Your task to perform on an android device: toggle data saver in the chrome app Image 0: 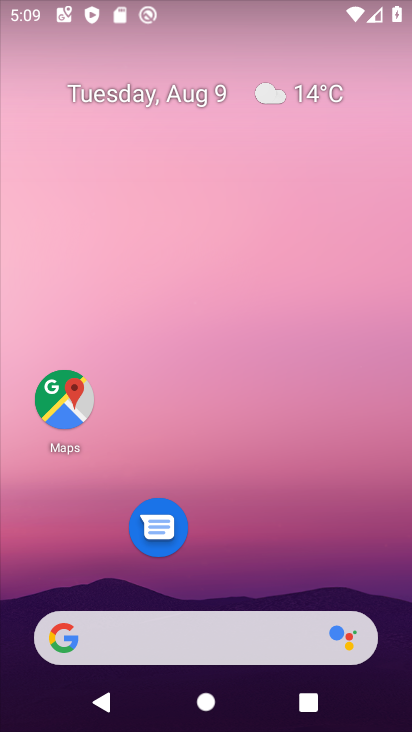
Step 0: drag from (176, 580) to (269, 28)
Your task to perform on an android device: toggle data saver in the chrome app Image 1: 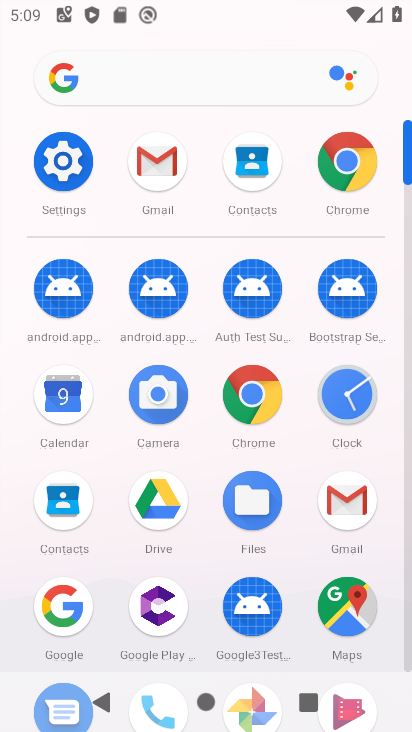
Step 1: click (356, 193)
Your task to perform on an android device: toggle data saver in the chrome app Image 2: 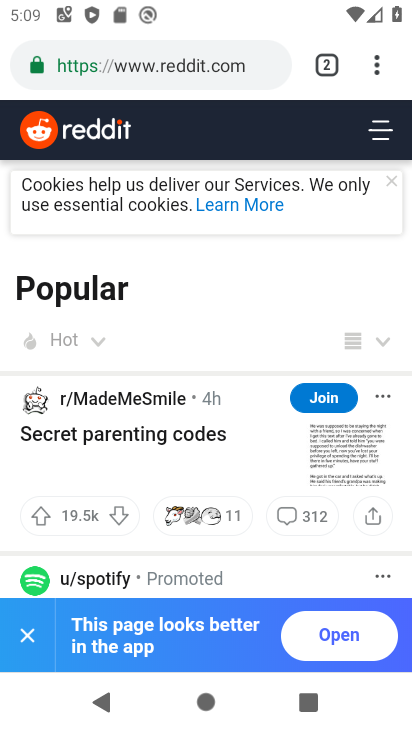
Step 2: click (385, 54)
Your task to perform on an android device: toggle data saver in the chrome app Image 3: 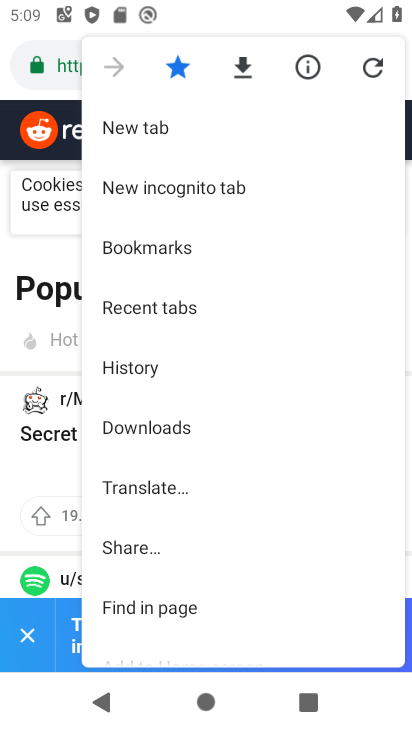
Step 3: drag from (219, 555) to (242, 144)
Your task to perform on an android device: toggle data saver in the chrome app Image 4: 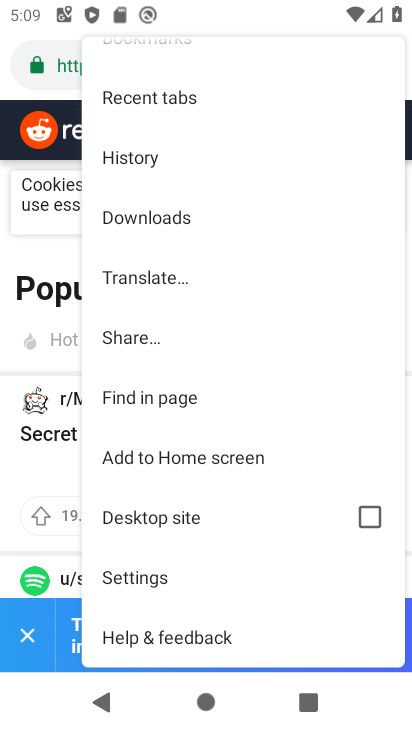
Step 4: click (199, 576)
Your task to perform on an android device: toggle data saver in the chrome app Image 5: 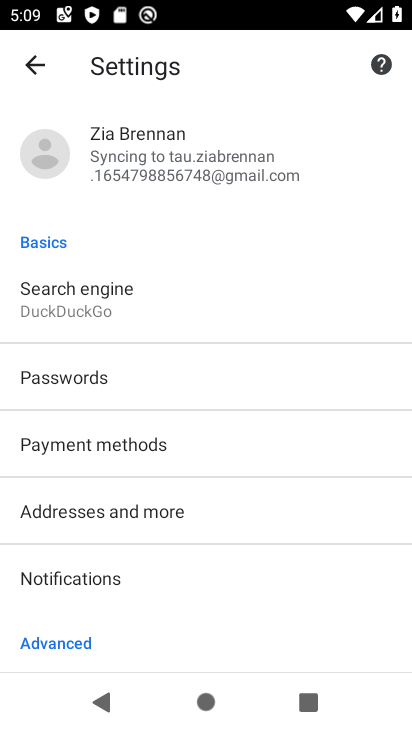
Step 5: drag from (327, 476) to (302, 216)
Your task to perform on an android device: toggle data saver in the chrome app Image 6: 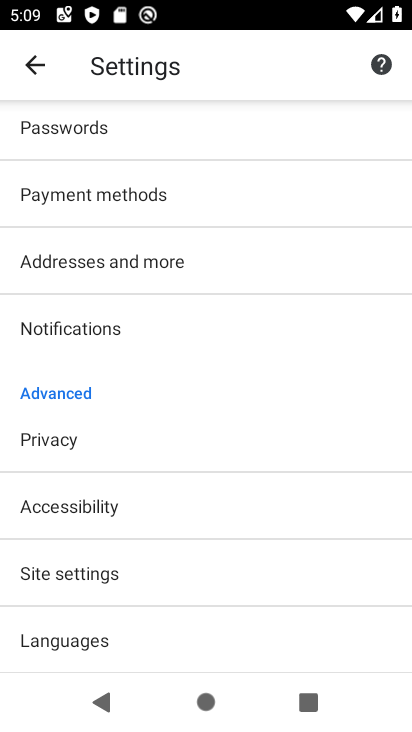
Step 6: click (154, 581)
Your task to perform on an android device: toggle data saver in the chrome app Image 7: 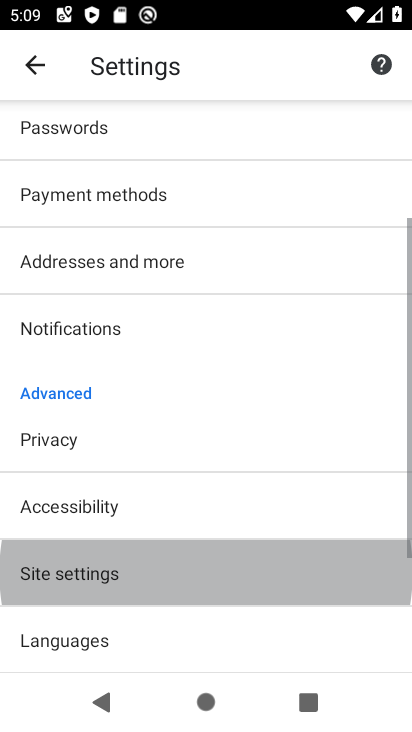
Step 7: click (154, 581)
Your task to perform on an android device: toggle data saver in the chrome app Image 8: 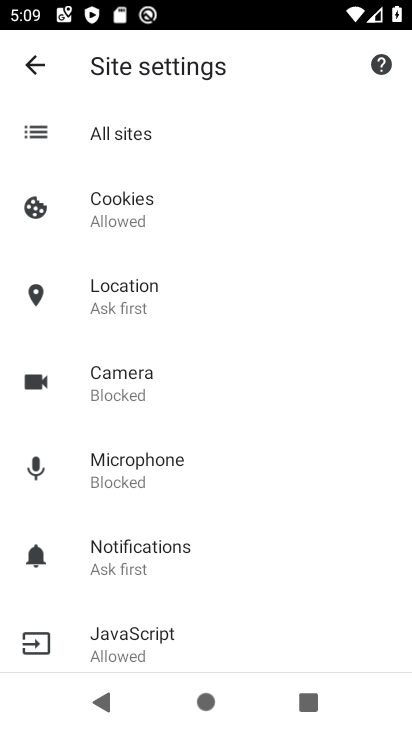
Step 8: click (56, 54)
Your task to perform on an android device: toggle data saver in the chrome app Image 9: 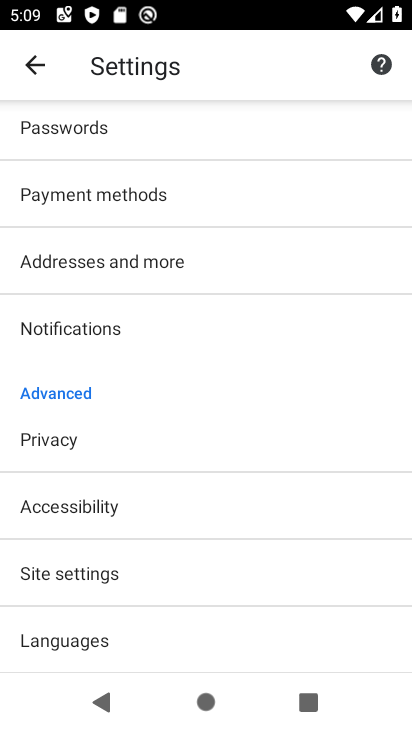
Step 9: drag from (237, 643) to (221, 309)
Your task to perform on an android device: toggle data saver in the chrome app Image 10: 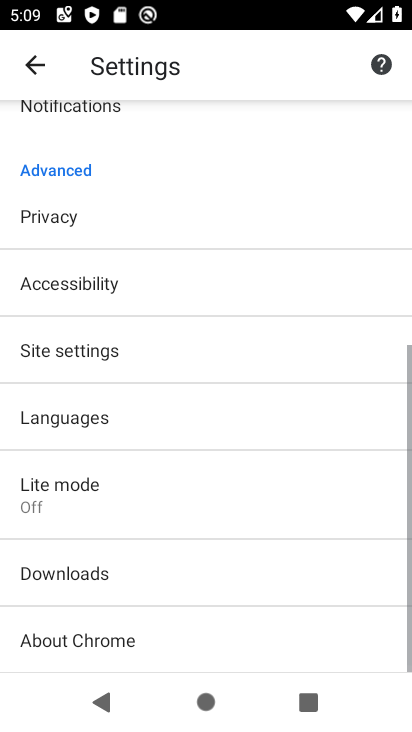
Step 10: click (221, 309)
Your task to perform on an android device: toggle data saver in the chrome app Image 11: 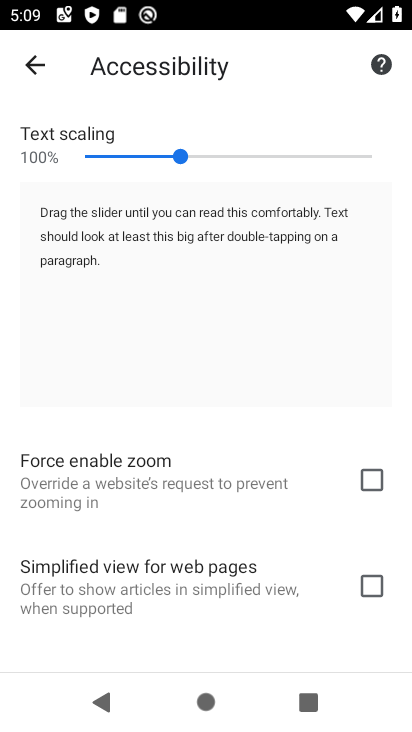
Step 11: click (45, 52)
Your task to perform on an android device: toggle data saver in the chrome app Image 12: 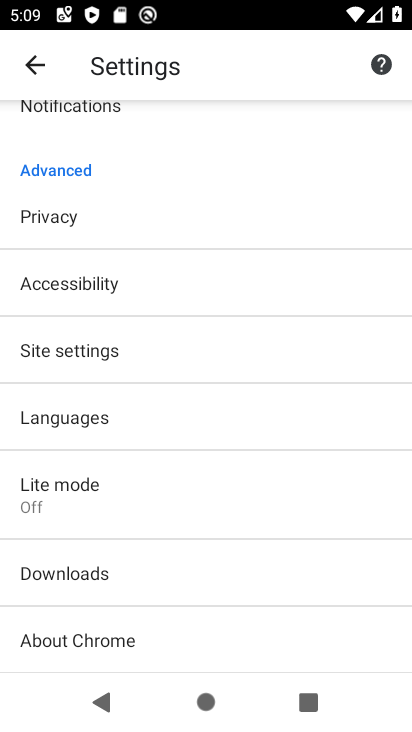
Step 12: click (128, 516)
Your task to perform on an android device: toggle data saver in the chrome app Image 13: 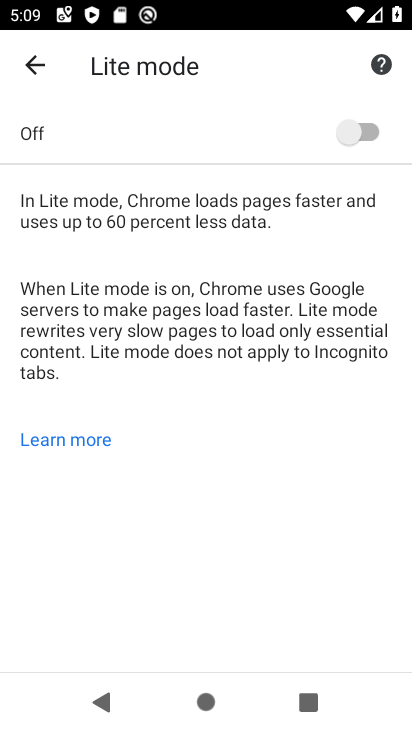
Step 13: click (359, 121)
Your task to perform on an android device: toggle data saver in the chrome app Image 14: 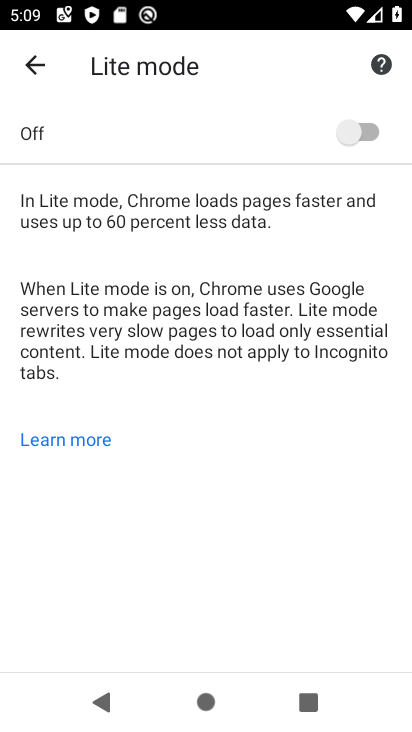
Step 14: click (359, 121)
Your task to perform on an android device: toggle data saver in the chrome app Image 15: 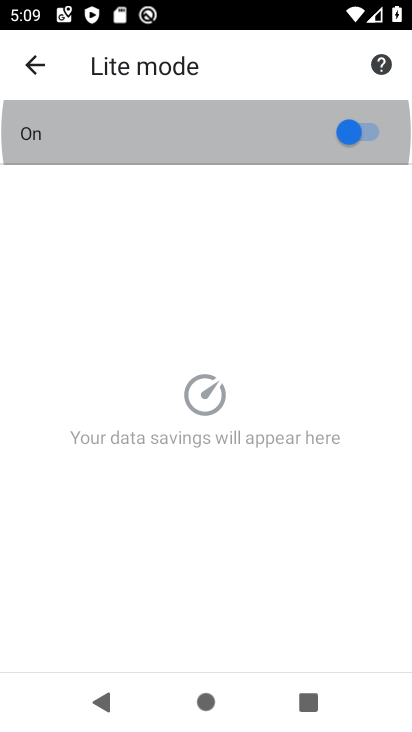
Step 15: click (359, 121)
Your task to perform on an android device: toggle data saver in the chrome app Image 16: 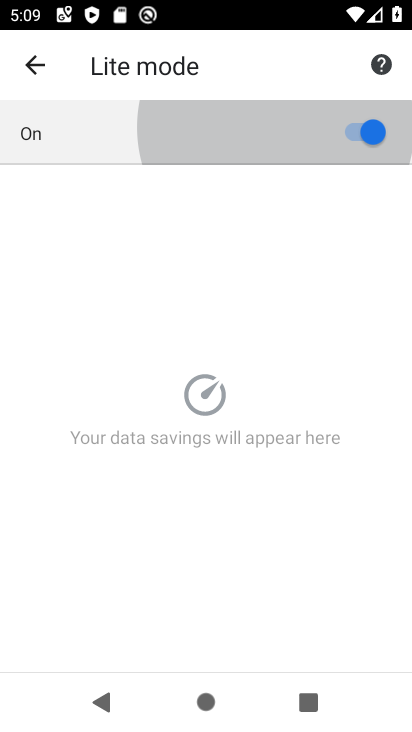
Step 16: click (359, 121)
Your task to perform on an android device: toggle data saver in the chrome app Image 17: 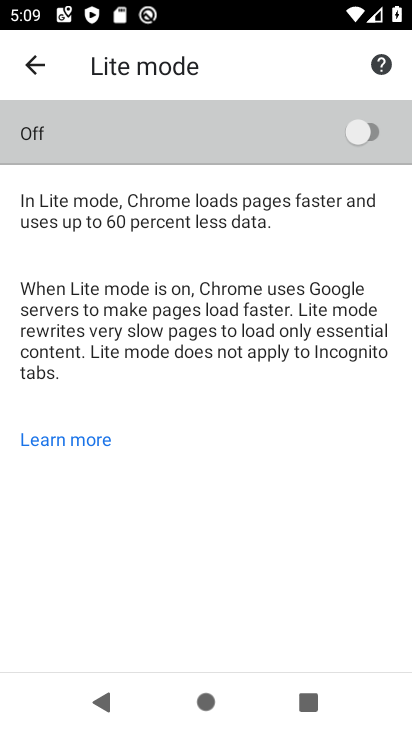
Step 17: click (359, 121)
Your task to perform on an android device: toggle data saver in the chrome app Image 18: 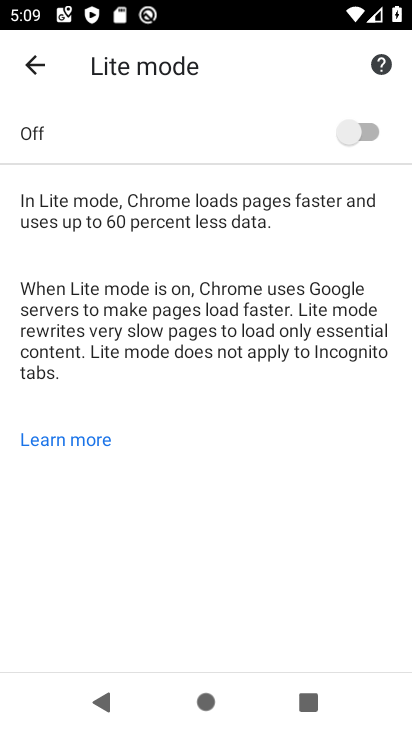
Step 18: task complete